Your task to perform on an android device: turn on wifi Image 0: 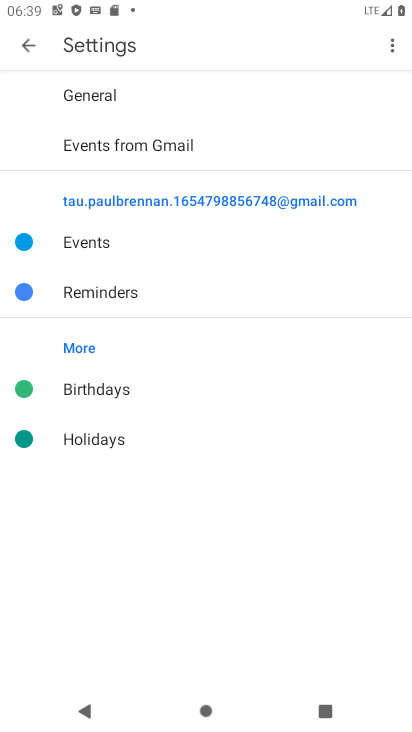
Step 0: press home button
Your task to perform on an android device: turn on wifi Image 1: 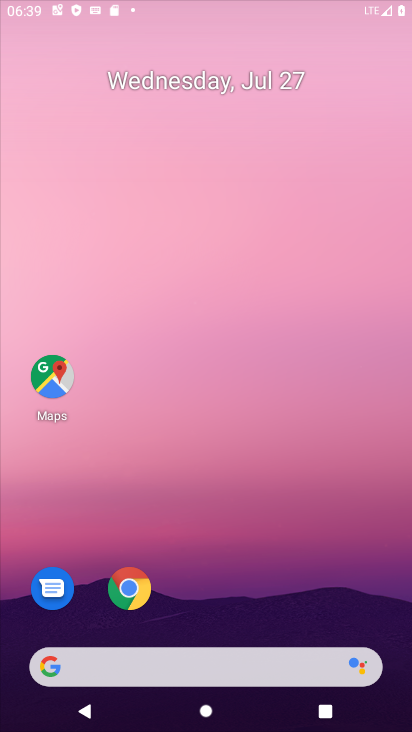
Step 1: drag from (189, 683) to (197, 89)
Your task to perform on an android device: turn on wifi Image 2: 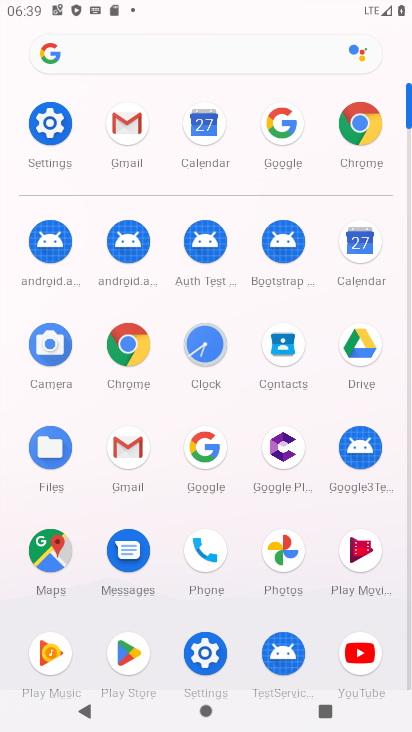
Step 2: click (56, 117)
Your task to perform on an android device: turn on wifi Image 3: 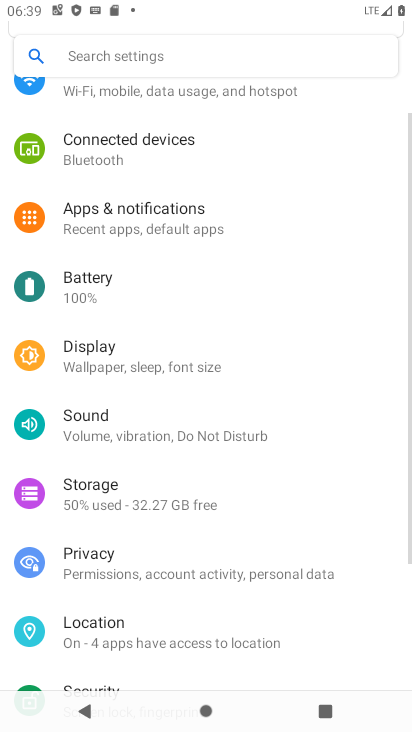
Step 3: drag from (229, 217) to (307, 718)
Your task to perform on an android device: turn on wifi Image 4: 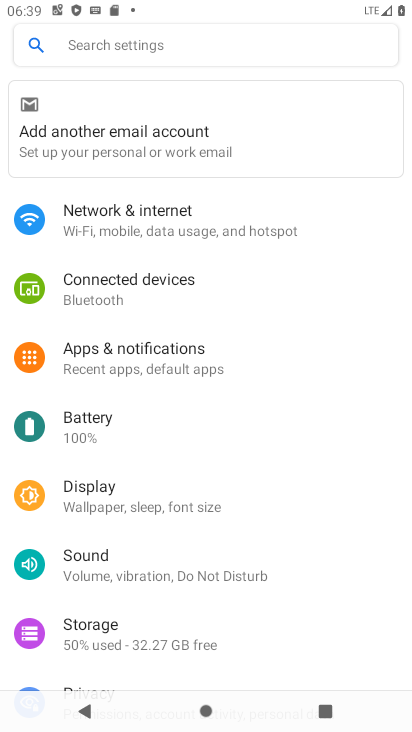
Step 4: click (222, 220)
Your task to perform on an android device: turn on wifi Image 5: 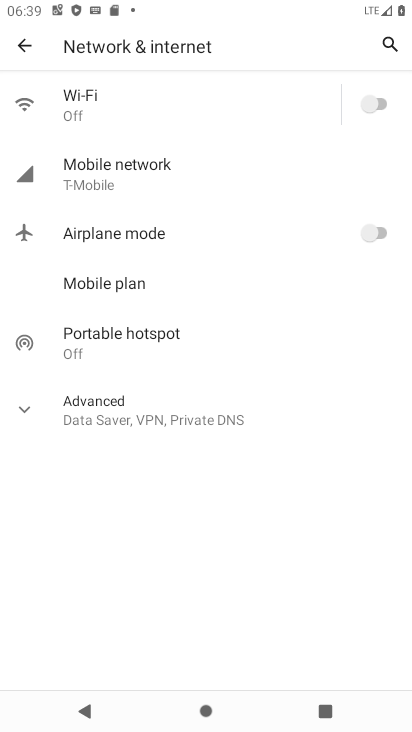
Step 5: click (388, 99)
Your task to perform on an android device: turn on wifi Image 6: 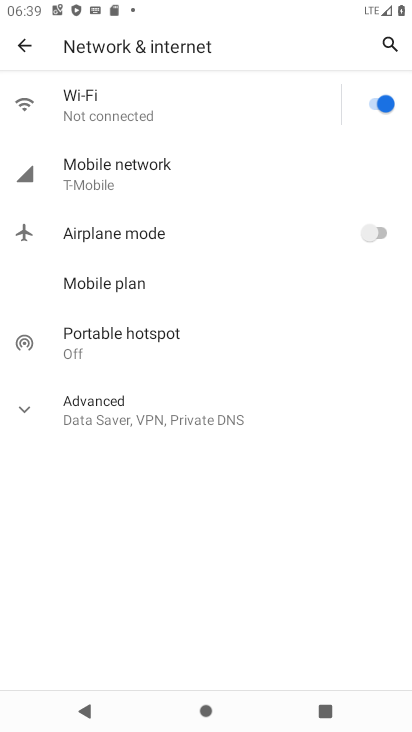
Step 6: task complete